Your task to perform on an android device: Go to accessibility settings Image 0: 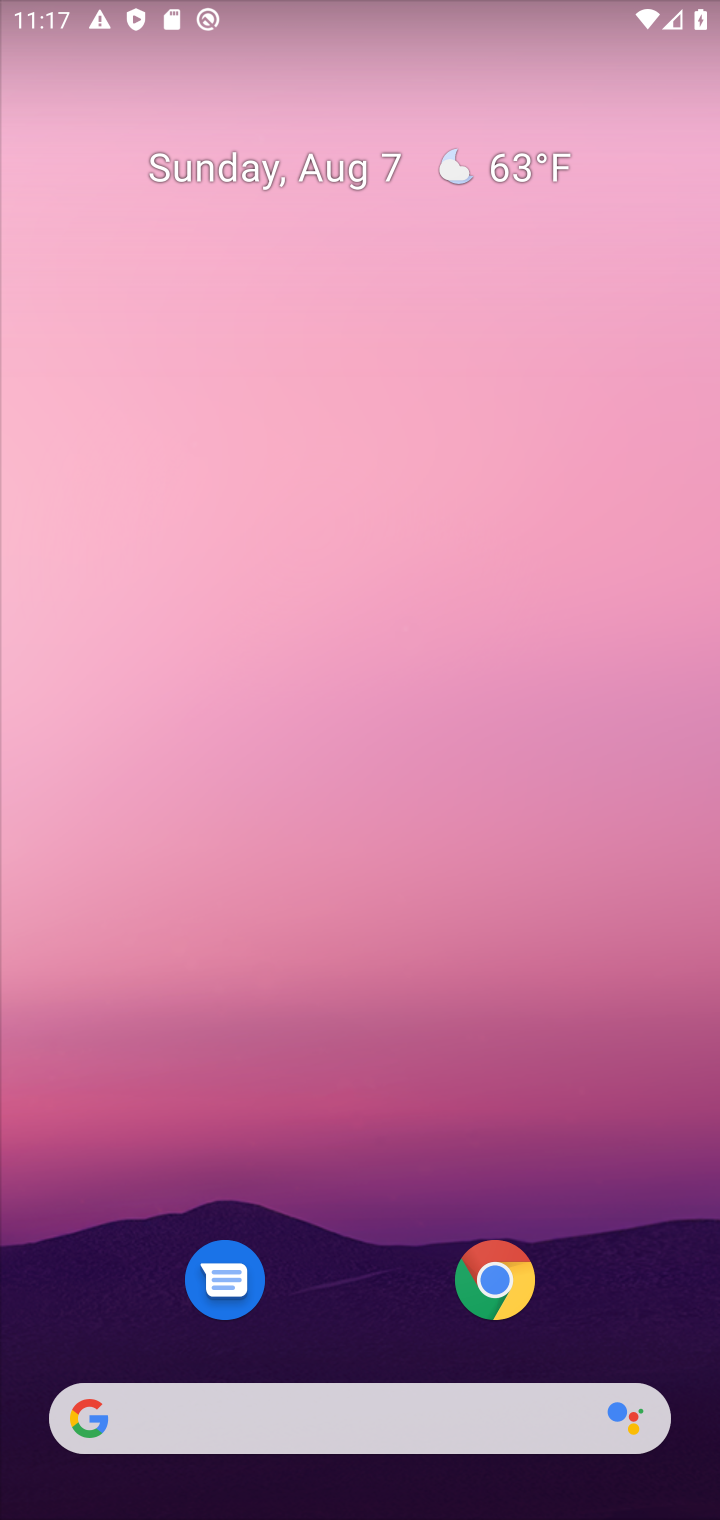
Step 0: drag from (378, 1372) to (358, 140)
Your task to perform on an android device: Go to accessibility settings Image 1: 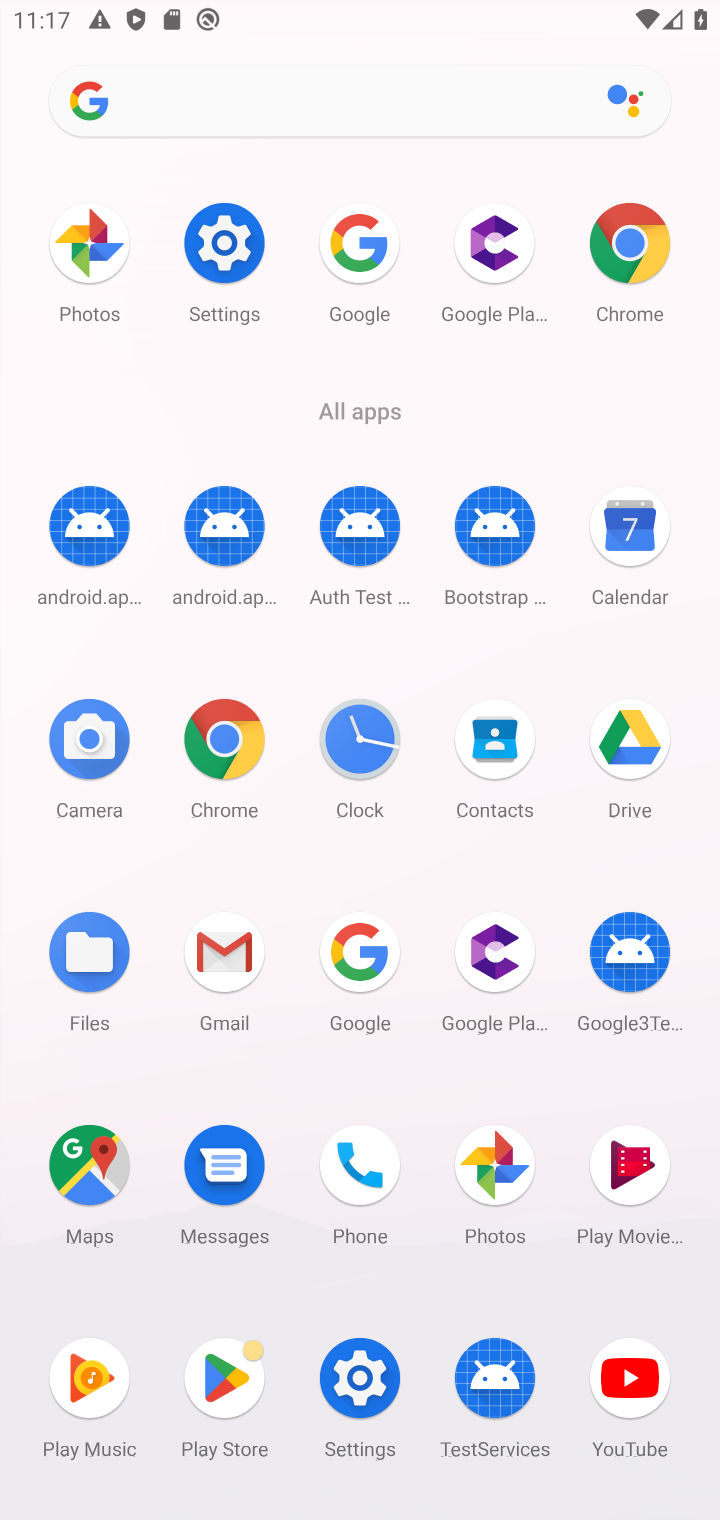
Step 1: click (226, 241)
Your task to perform on an android device: Go to accessibility settings Image 2: 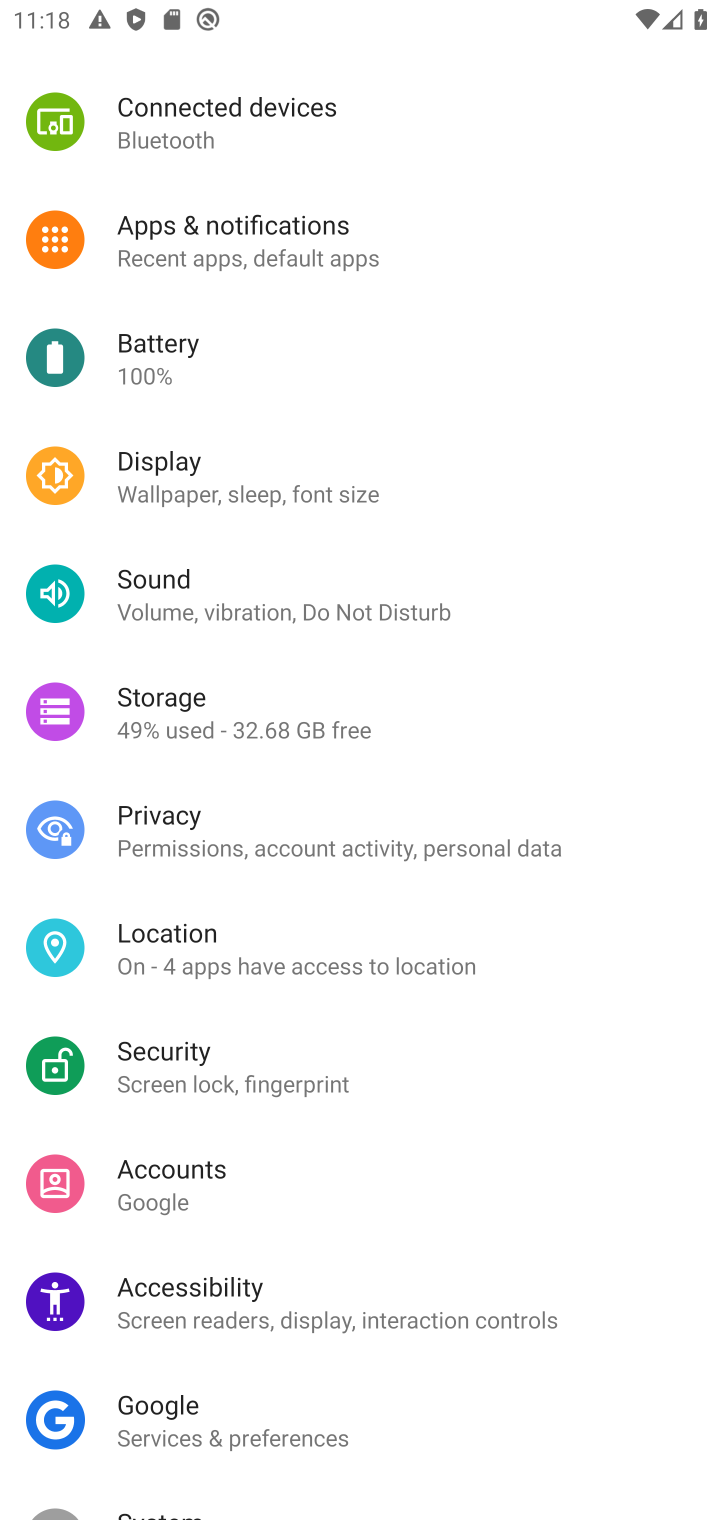
Step 2: click (164, 1298)
Your task to perform on an android device: Go to accessibility settings Image 3: 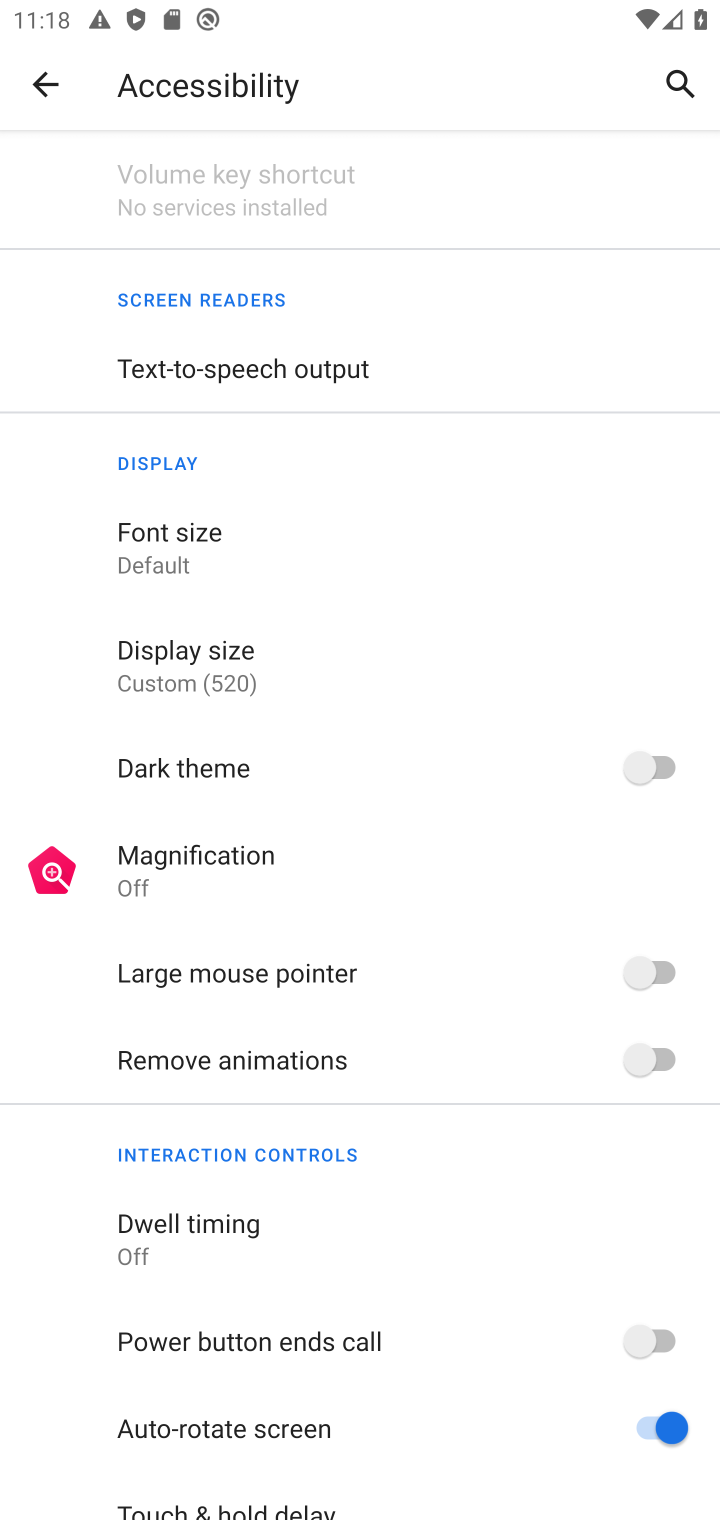
Step 3: task complete